Your task to perform on an android device: turn off javascript in the chrome app Image 0: 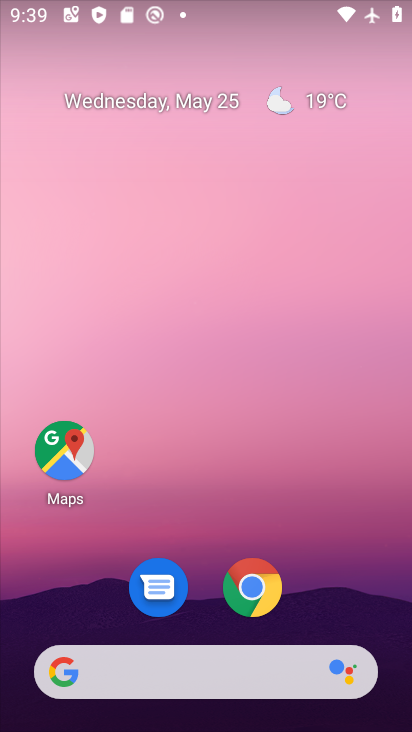
Step 0: click (251, 582)
Your task to perform on an android device: turn off javascript in the chrome app Image 1: 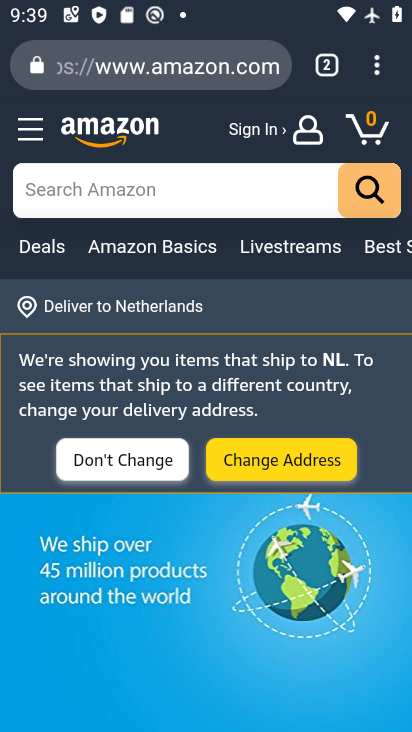
Step 1: click (377, 73)
Your task to perform on an android device: turn off javascript in the chrome app Image 2: 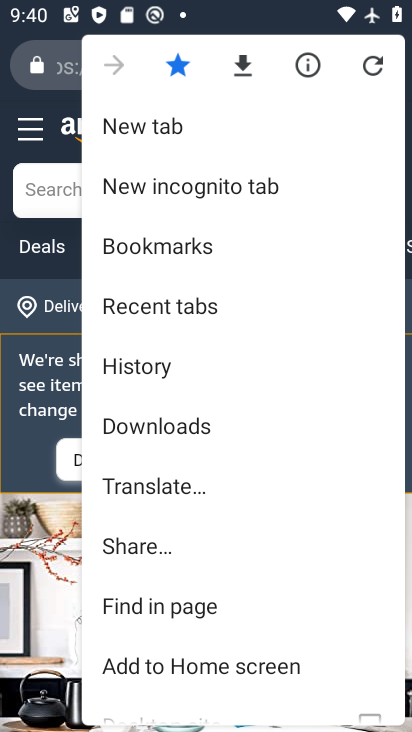
Step 2: drag from (291, 607) to (274, 211)
Your task to perform on an android device: turn off javascript in the chrome app Image 3: 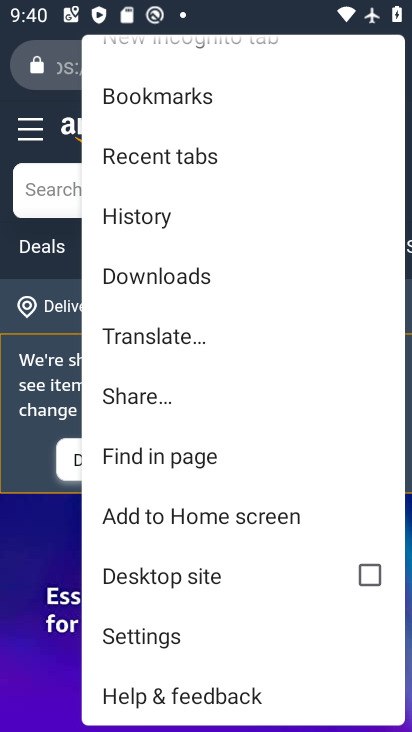
Step 3: click (170, 627)
Your task to perform on an android device: turn off javascript in the chrome app Image 4: 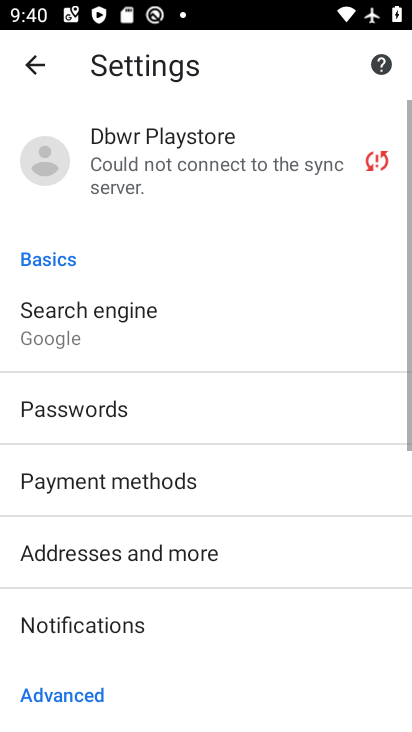
Step 4: drag from (227, 678) to (251, 289)
Your task to perform on an android device: turn off javascript in the chrome app Image 5: 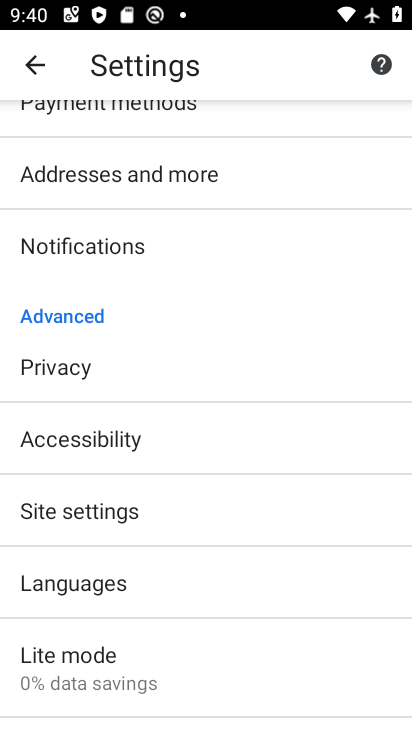
Step 5: click (86, 510)
Your task to perform on an android device: turn off javascript in the chrome app Image 6: 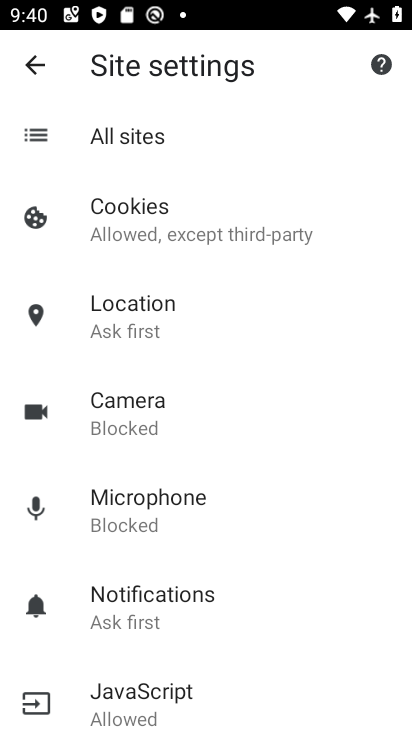
Step 6: drag from (255, 646) to (250, 301)
Your task to perform on an android device: turn off javascript in the chrome app Image 7: 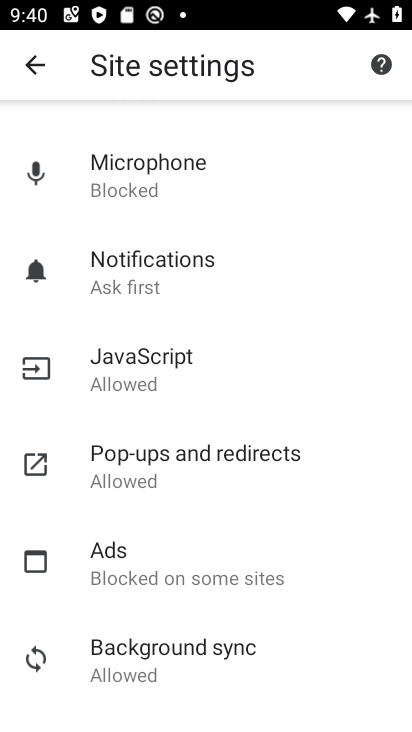
Step 7: click (135, 374)
Your task to perform on an android device: turn off javascript in the chrome app Image 8: 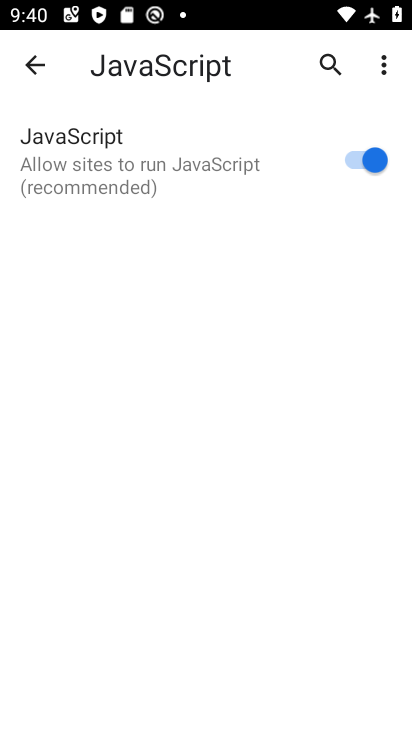
Step 8: click (349, 161)
Your task to perform on an android device: turn off javascript in the chrome app Image 9: 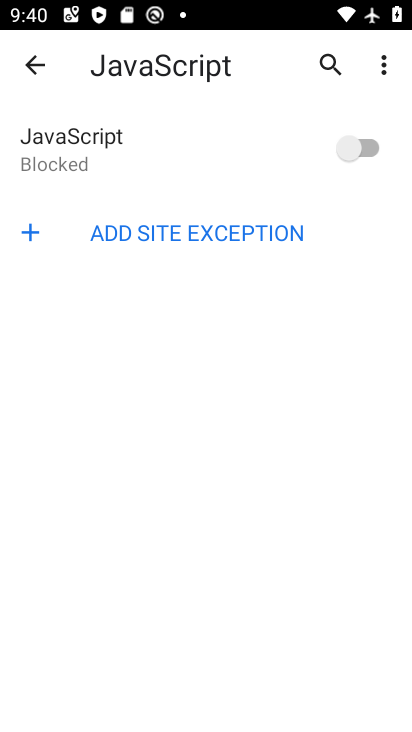
Step 9: task complete